Your task to perform on an android device: Go to Google maps Image 0: 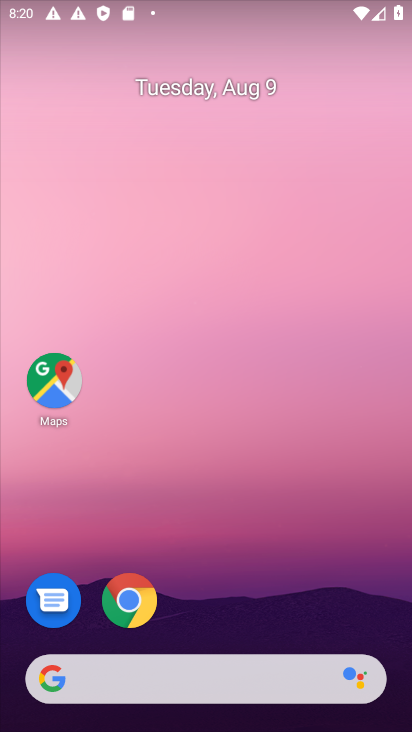
Step 0: click (55, 378)
Your task to perform on an android device: Go to Google maps Image 1: 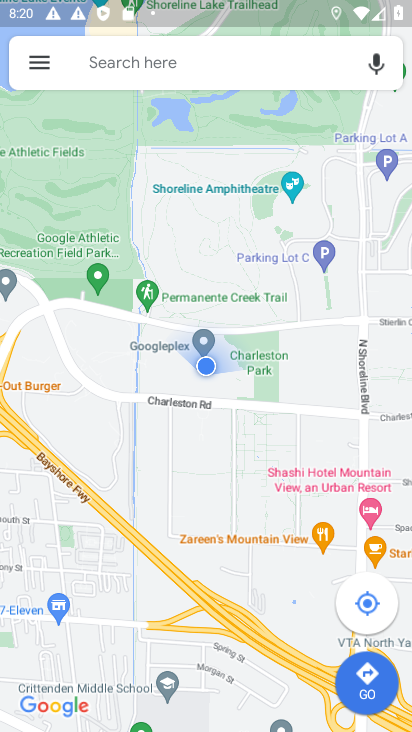
Step 1: task complete